Your task to perform on an android device: find which apps use the phone's location Image 0: 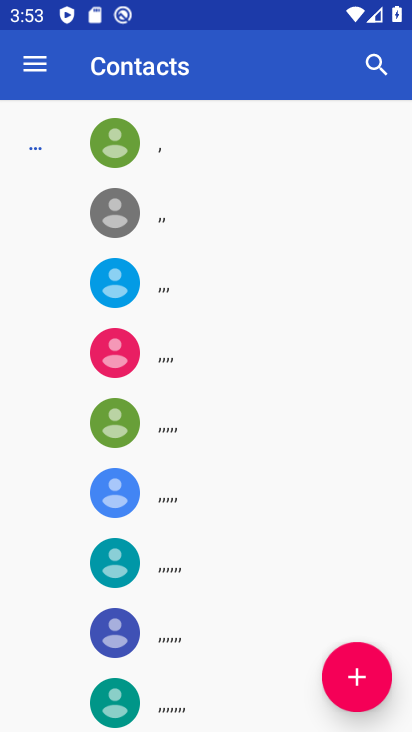
Step 0: press back button
Your task to perform on an android device: find which apps use the phone's location Image 1: 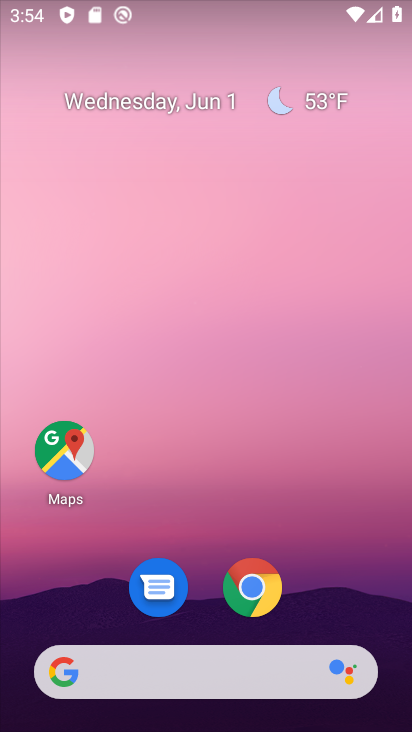
Step 1: drag from (342, 606) to (249, 69)
Your task to perform on an android device: find which apps use the phone's location Image 2: 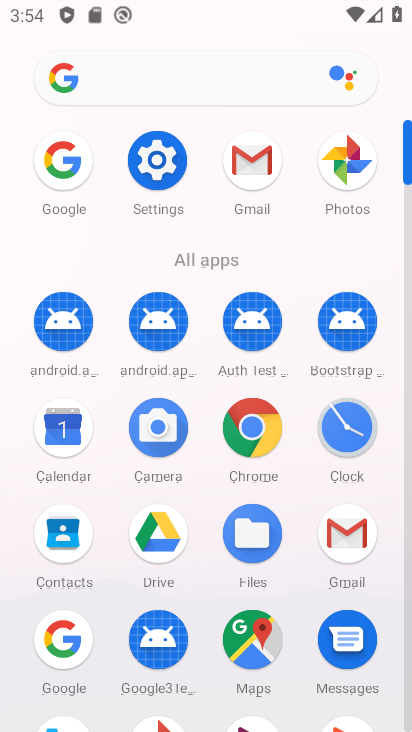
Step 2: click (154, 162)
Your task to perform on an android device: find which apps use the phone's location Image 3: 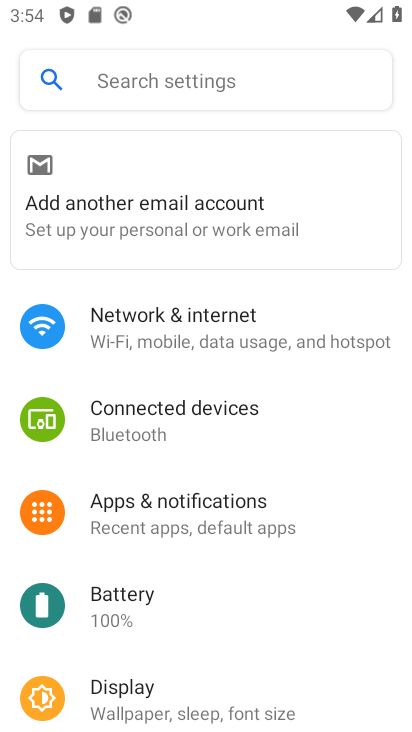
Step 3: drag from (197, 452) to (243, 375)
Your task to perform on an android device: find which apps use the phone's location Image 4: 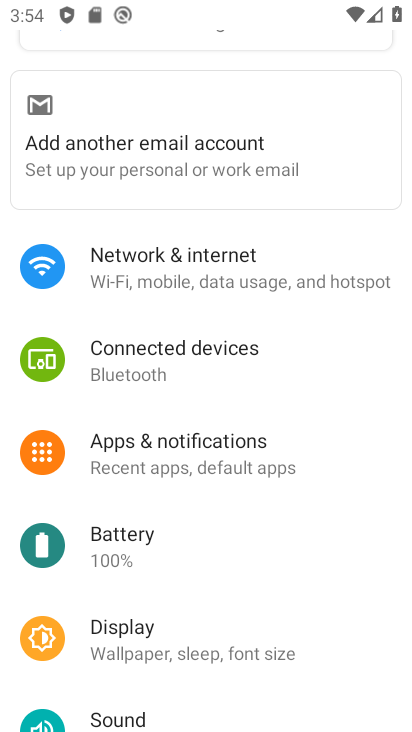
Step 4: drag from (202, 560) to (224, 499)
Your task to perform on an android device: find which apps use the phone's location Image 5: 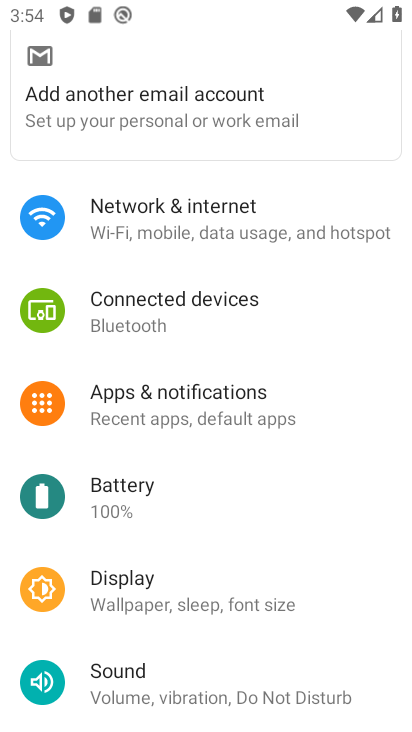
Step 5: drag from (178, 553) to (226, 482)
Your task to perform on an android device: find which apps use the phone's location Image 6: 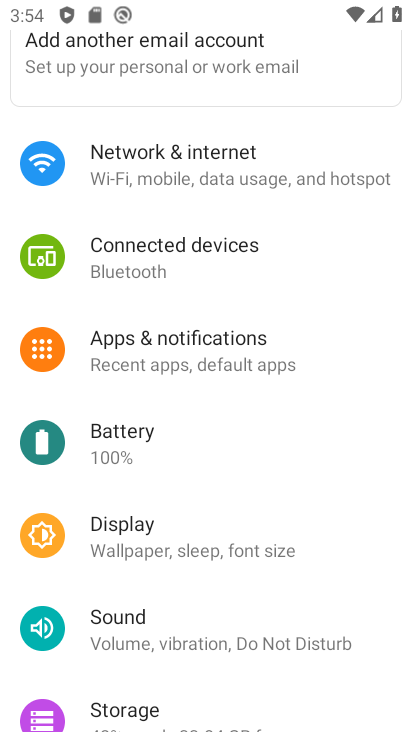
Step 6: drag from (185, 578) to (240, 512)
Your task to perform on an android device: find which apps use the phone's location Image 7: 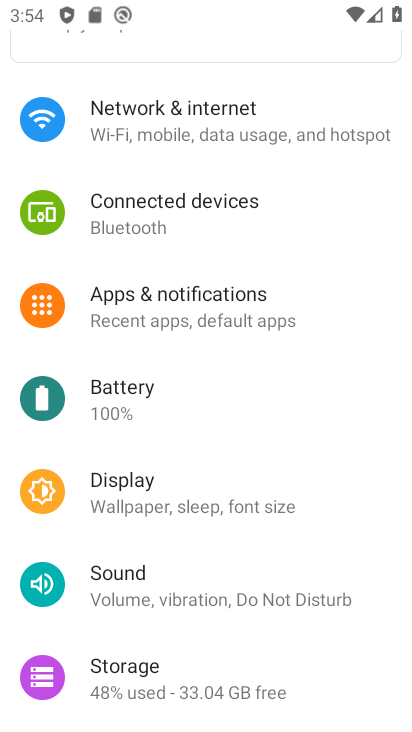
Step 7: drag from (195, 566) to (249, 483)
Your task to perform on an android device: find which apps use the phone's location Image 8: 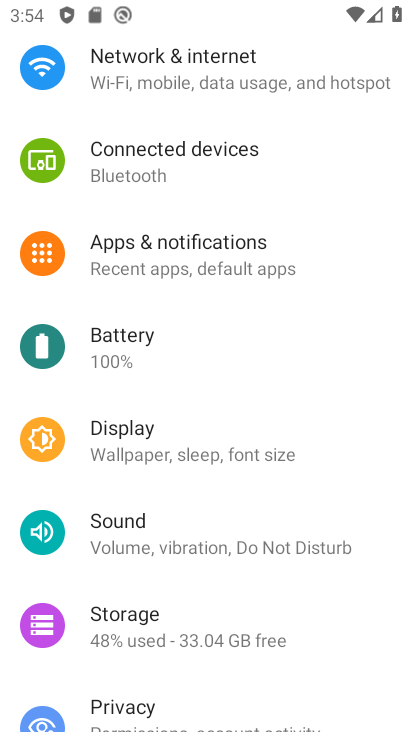
Step 8: drag from (197, 589) to (263, 497)
Your task to perform on an android device: find which apps use the phone's location Image 9: 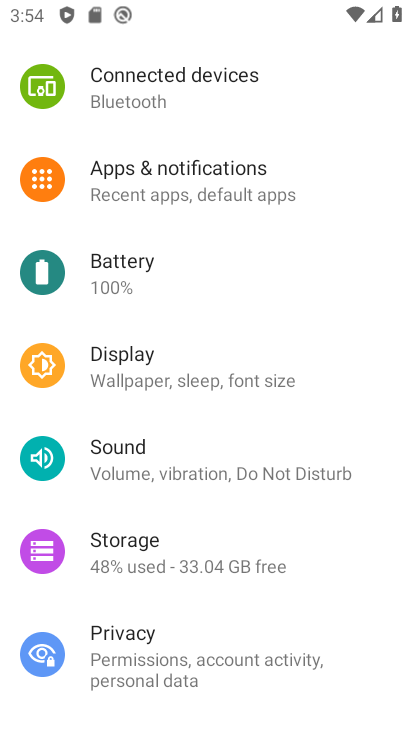
Step 9: drag from (193, 599) to (251, 530)
Your task to perform on an android device: find which apps use the phone's location Image 10: 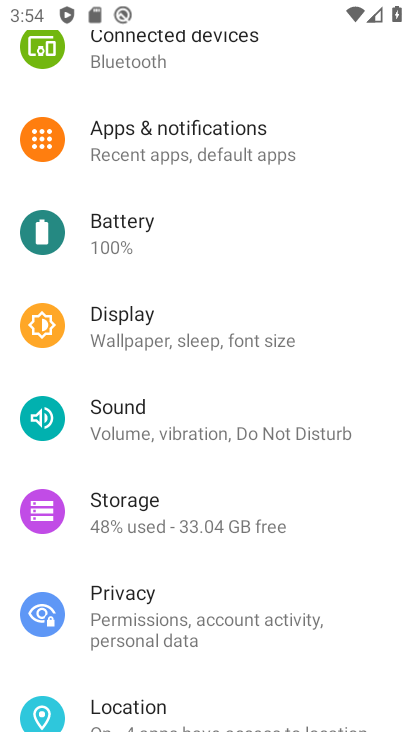
Step 10: drag from (205, 588) to (262, 493)
Your task to perform on an android device: find which apps use the phone's location Image 11: 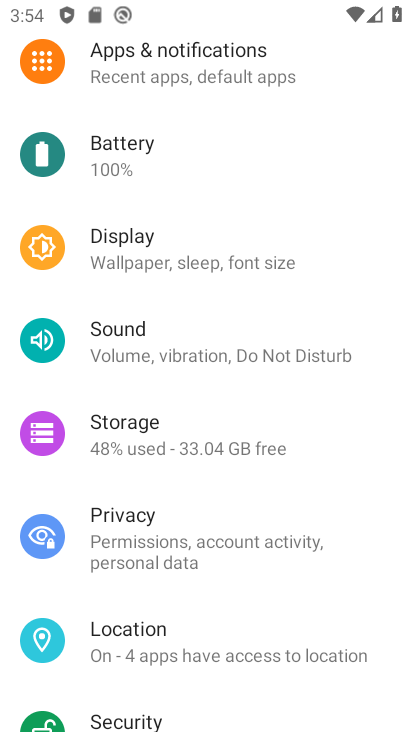
Step 11: click (167, 645)
Your task to perform on an android device: find which apps use the phone's location Image 12: 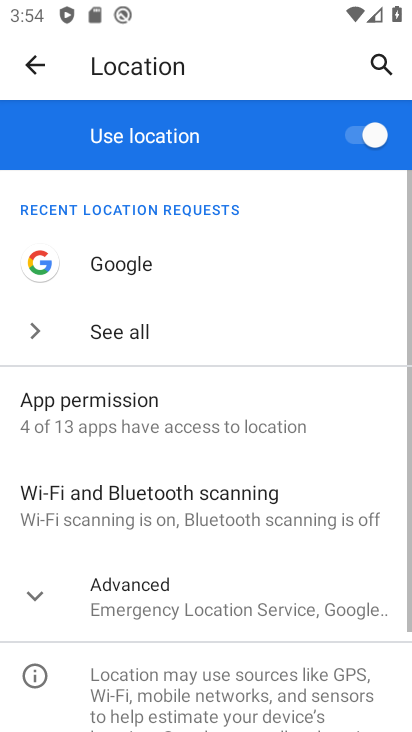
Step 12: click (117, 406)
Your task to perform on an android device: find which apps use the phone's location Image 13: 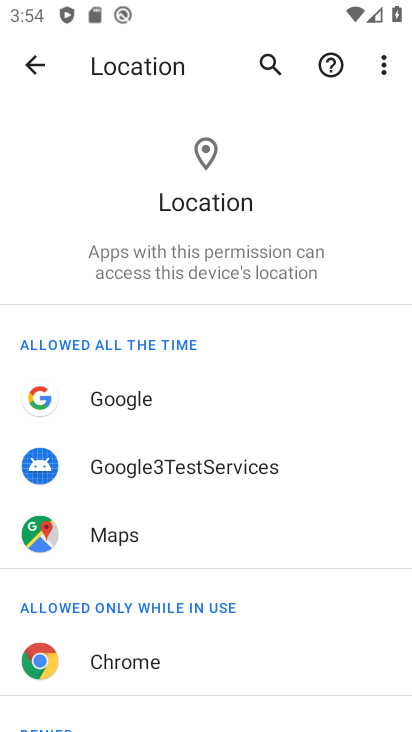
Step 13: click (127, 529)
Your task to perform on an android device: find which apps use the phone's location Image 14: 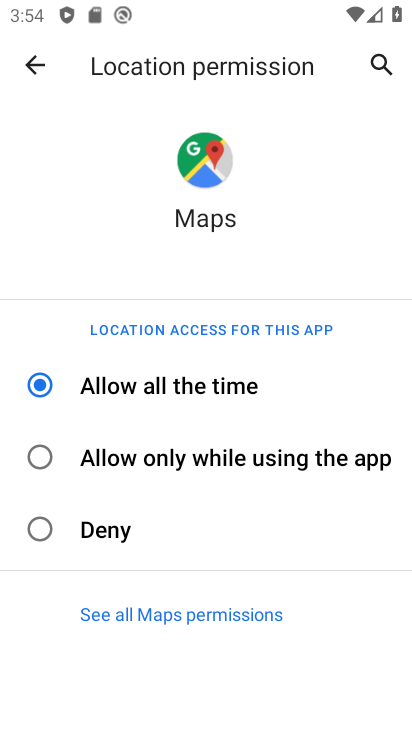
Step 14: task complete